Your task to perform on an android device: turn off wifi Image 0: 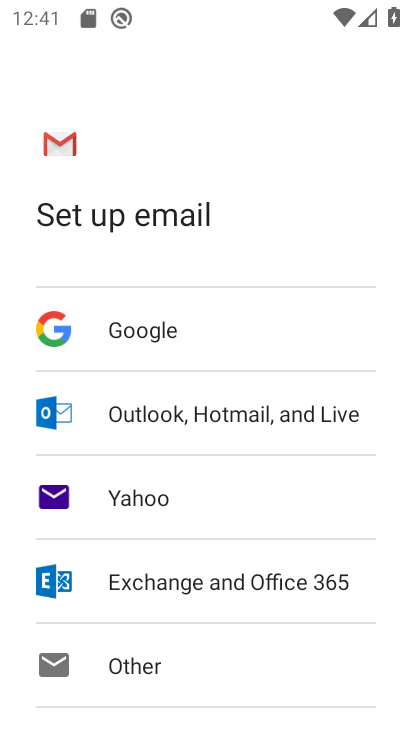
Step 0: press home button
Your task to perform on an android device: turn off wifi Image 1: 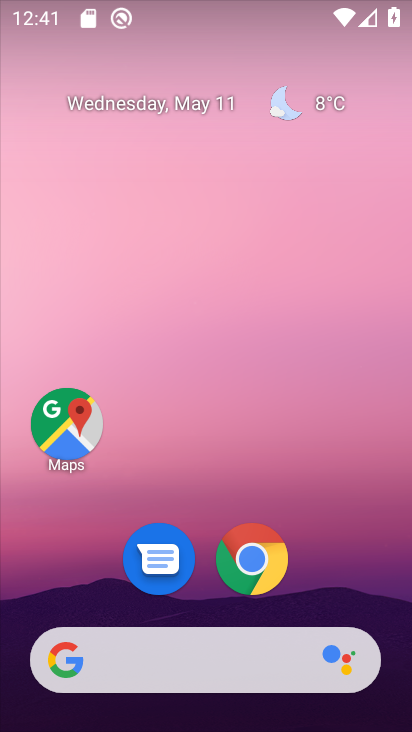
Step 1: drag from (202, 724) to (199, 217)
Your task to perform on an android device: turn off wifi Image 2: 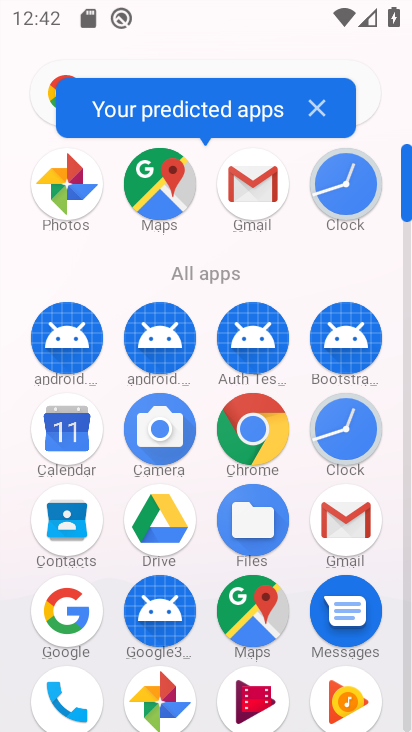
Step 2: drag from (202, 619) to (206, 231)
Your task to perform on an android device: turn off wifi Image 3: 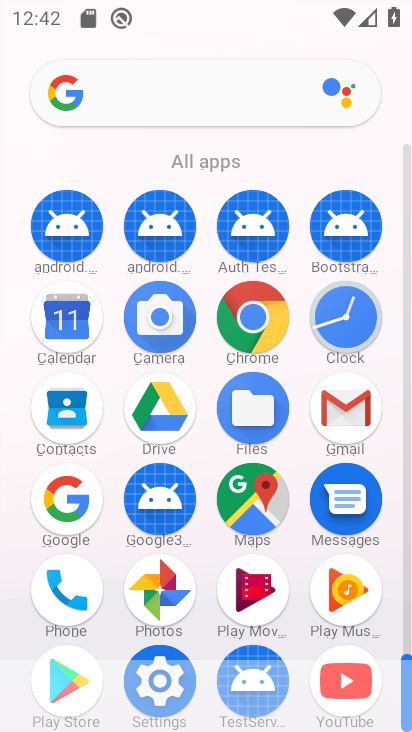
Step 3: click (164, 656)
Your task to perform on an android device: turn off wifi Image 4: 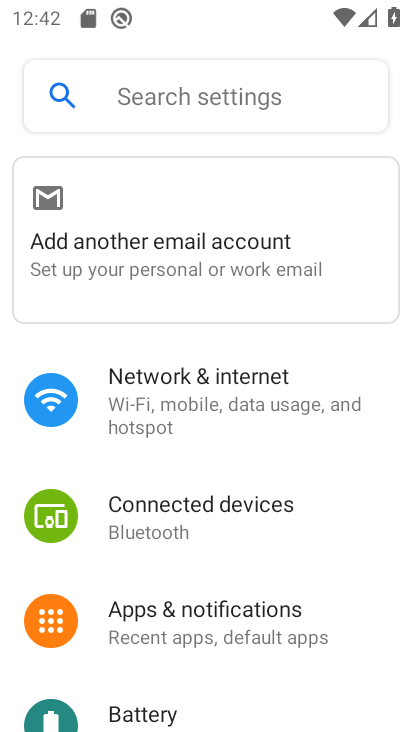
Step 4: click (175, 382)
Your task to perform on an android device: turn off wifi Image 5: 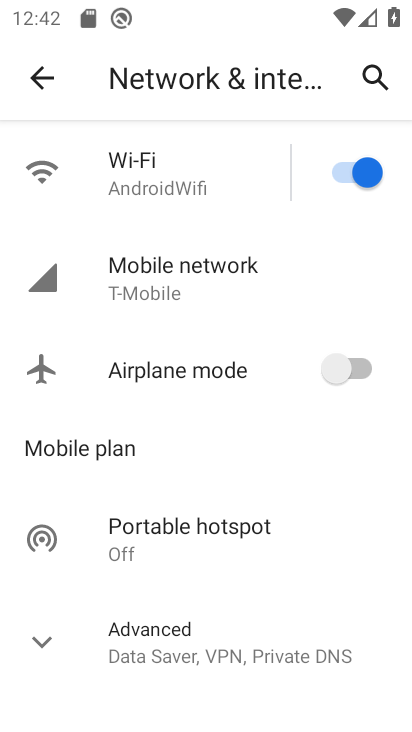
Step 5: click (340, 172)
Your task to perform on an android device: turn off wifi Image 6: 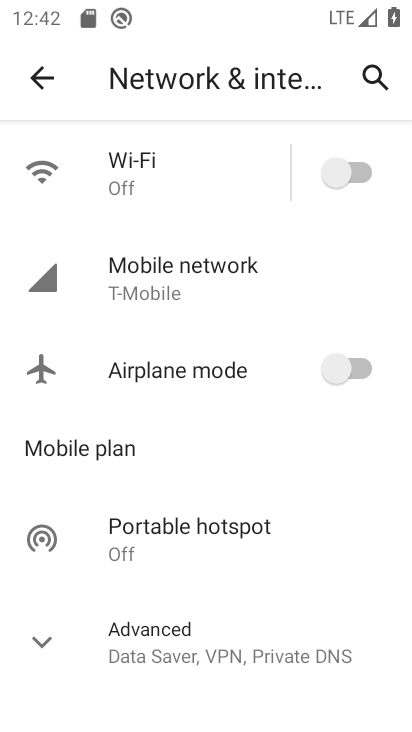
Step 6: task complete